Your task to perform on an android device: change keyboard looks Image 0: 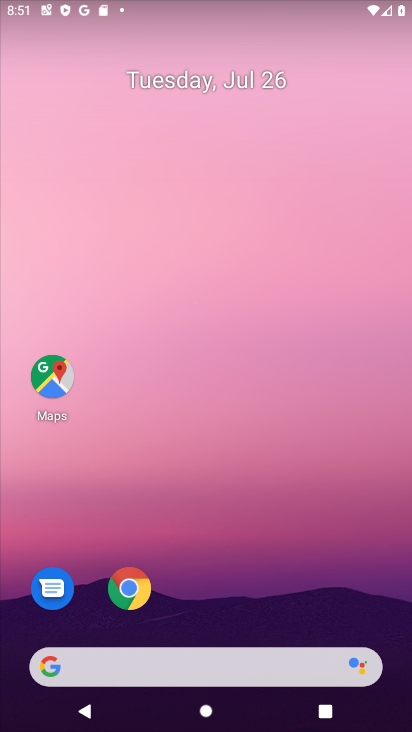
Step 0: press home button
Your task to perform on an android device: change keyboard looks Image 1: 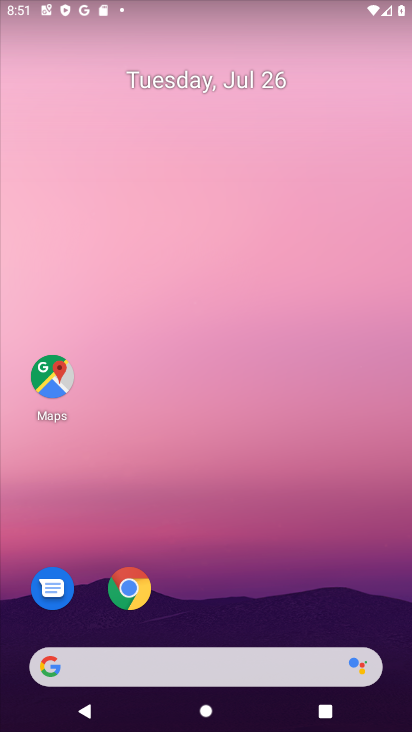
Step 1: drag from (202, 621) to (216, 63)
Your task to perform on an android device: change keyboard looks Image 2: 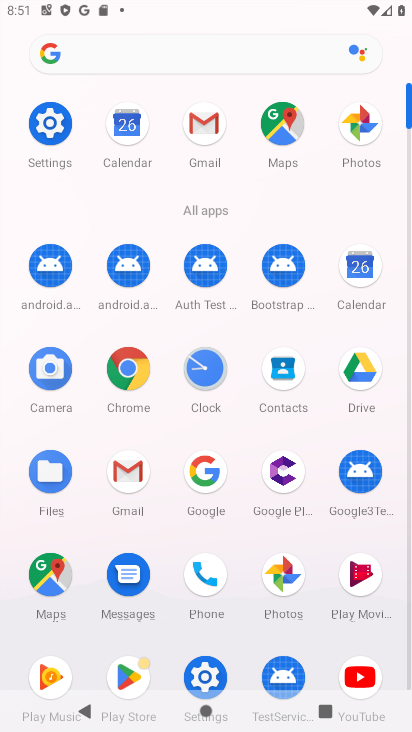
Step 2: click (47, 117)
Your task to perform on an android device: change keyboard looks Image 3: 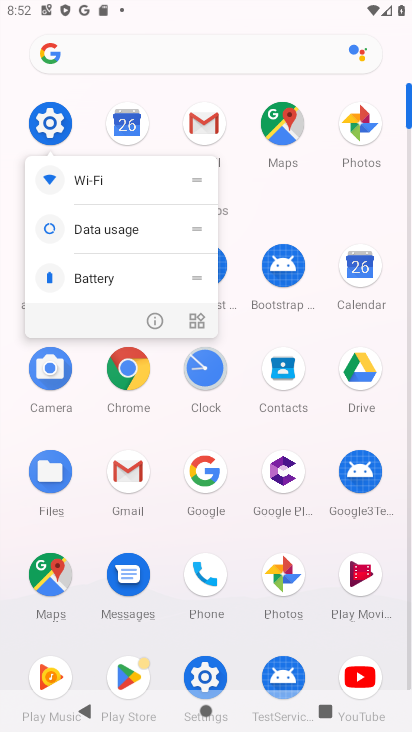
Step 3: click (50, 117)
Your task to perform on an android device: change keyboard looks Image 4: 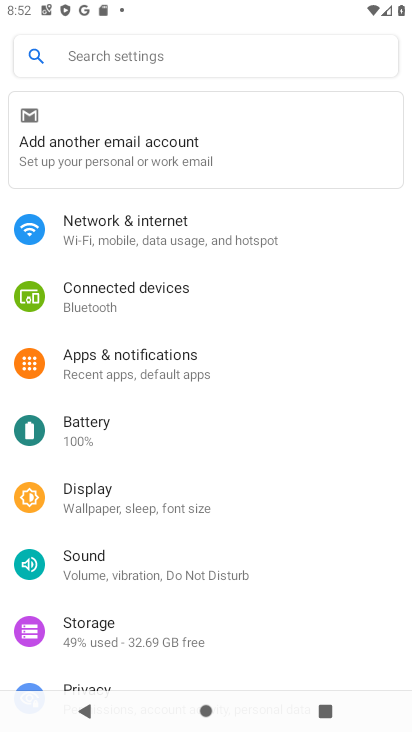
Step 4: drag from (171, 663) to (184, 51)
Your task to perform on an android device: change keyboard looks Image 5: 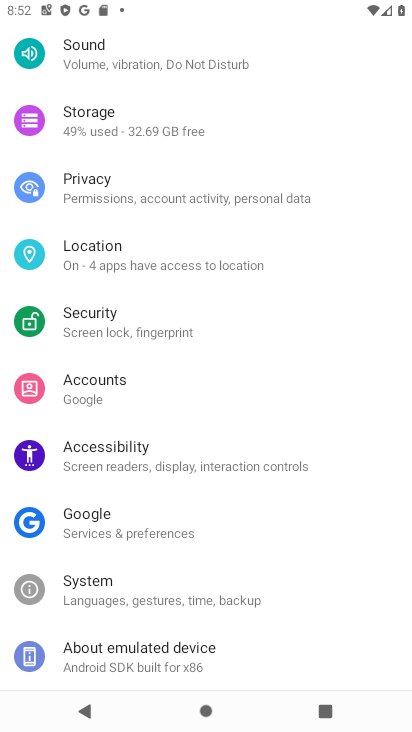
Step 5: drag from (151, 649) to (147, 174)
Your task to perform on an android device: change keyboard looks Image 6: 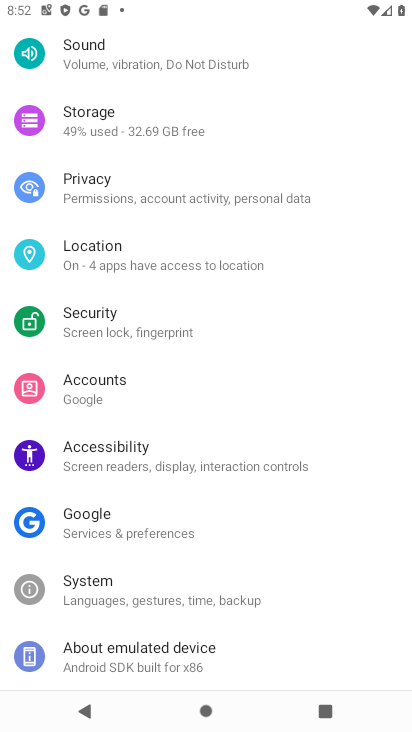
Step 6: click (121, 580)
Your task to perform on an android device: change keyboard looks Image 7: 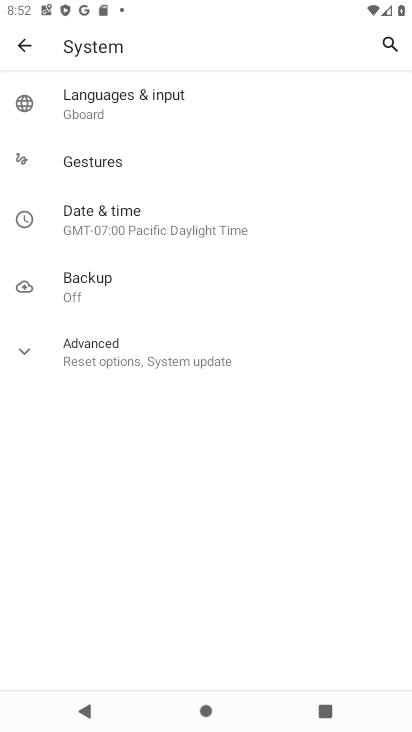
Step 7: click (20, 349)
Your task to perform on an android device: change keyboard looks Image 8: 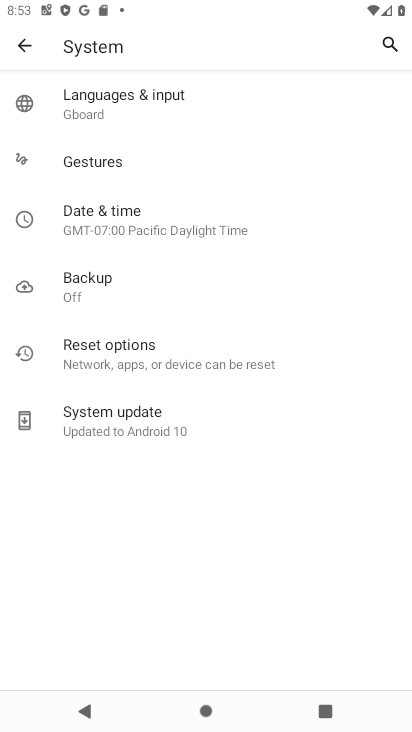
Step 8: click (52, 109)
Your task to perform on an android device: change keyboard looks Image 9: 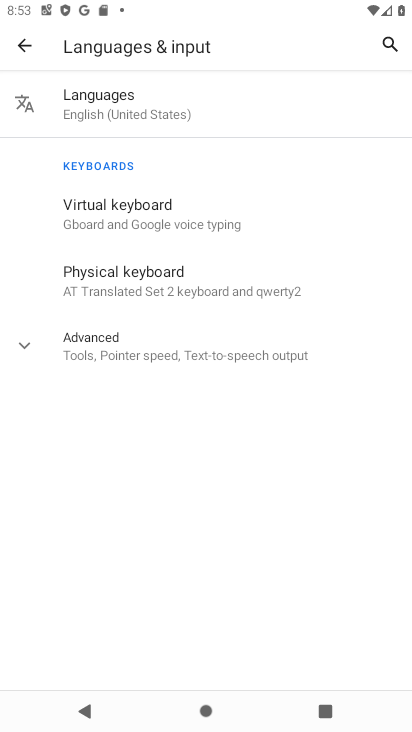
Step 9: click (115, 215)
Your task to perform on an android device: change keyboard looks Image 10: 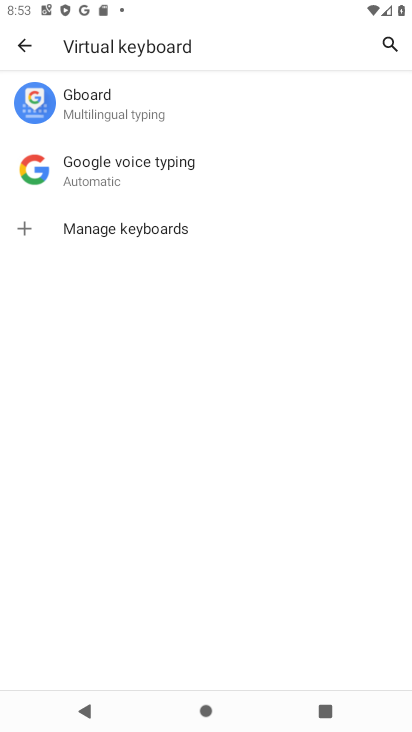
Step 10: click (127, 92)
Your task to perform on an android device: change keyboard looks Image 11: 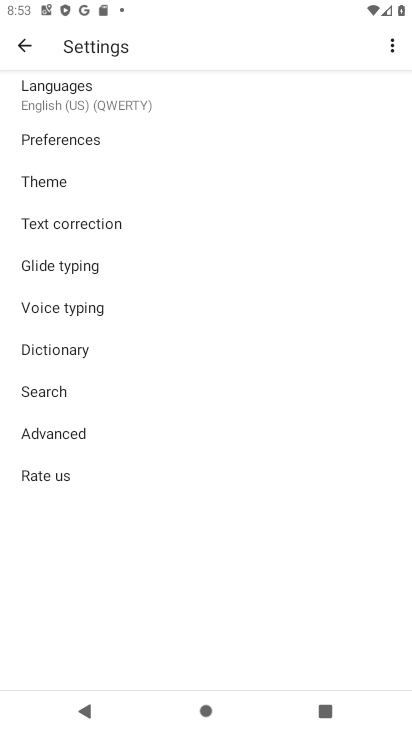
Step 11: click (74, 175)
Your task to perform on an android device: change keyboard looks Image 12: 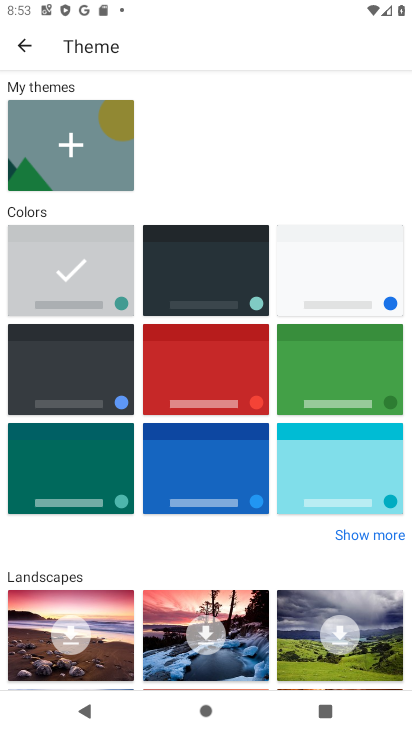
Step 12: click (195, 372)
Your task to perform on an android device: change keyboard looks Image 13: 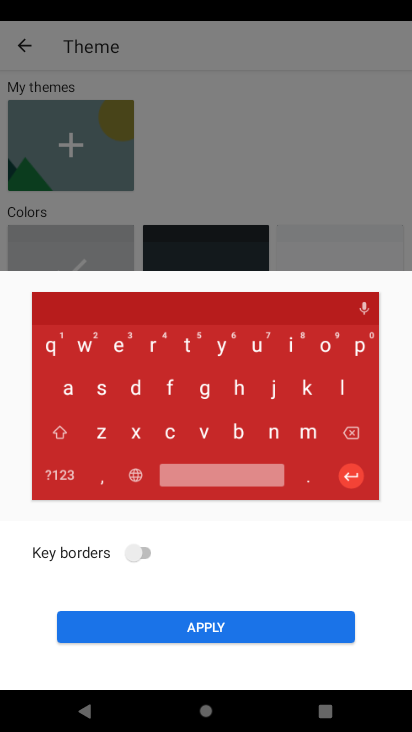
Step 13: click (207, 626)
Your task to perform on an android device: change keyboard looks Image 14: 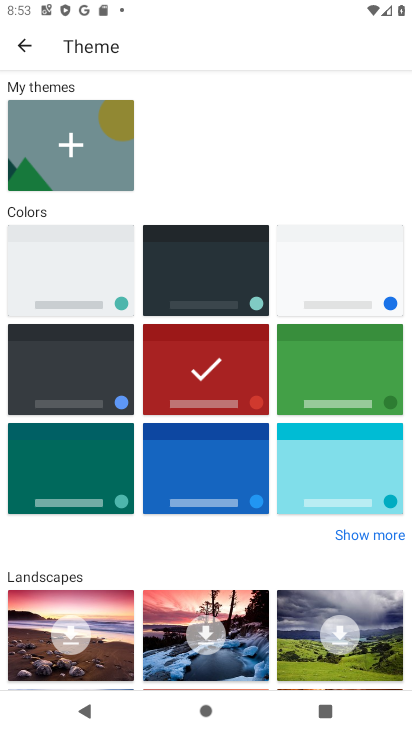
Step 14: task complete